Your task to perform on an android device: Do I have any events today? Image 0: 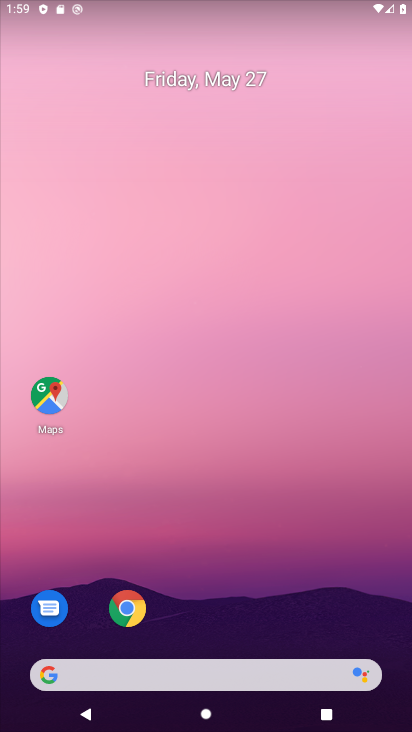
Step 0: drag from (254, 536) to (192, 24)
Your task to perform on an android device: Do I have any events today? Image 1: 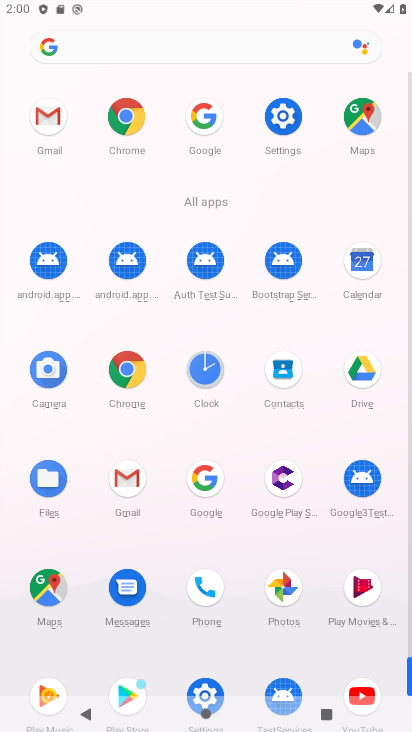
Step 1: click (361, 260)
Your task to perform on an android device: Do I have any events today? Image 2: 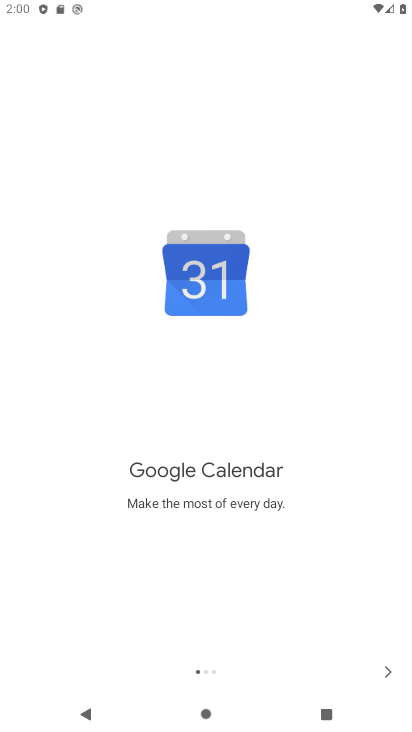
Step 2: click (388, 673)
Your task to perform on an android device: Do I have any events today? Image 3: 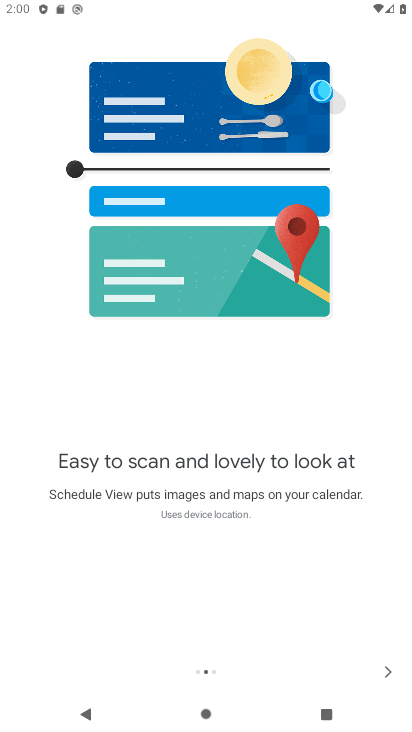
Step 3: click (386, 668)
Your task to perform on an android device: Do I have any events today? Image 4: 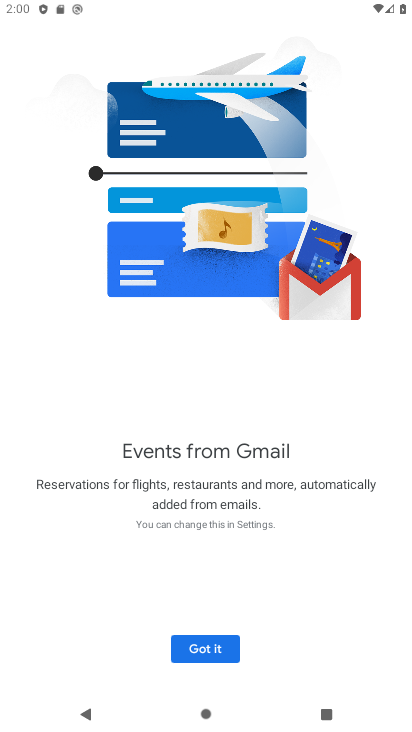
Step 4: click (224, 642)
Your task to perform on an android device: Do I have any events today? Image 5: 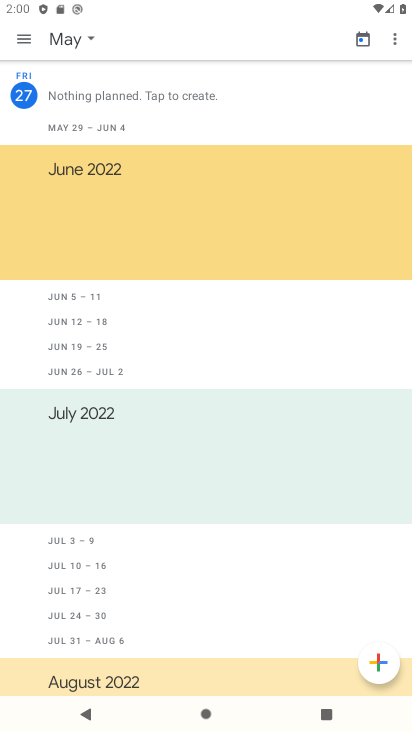
Step 5: click (20, 39)
Your task to perform on an android device: Do I have any events today? Image 6: 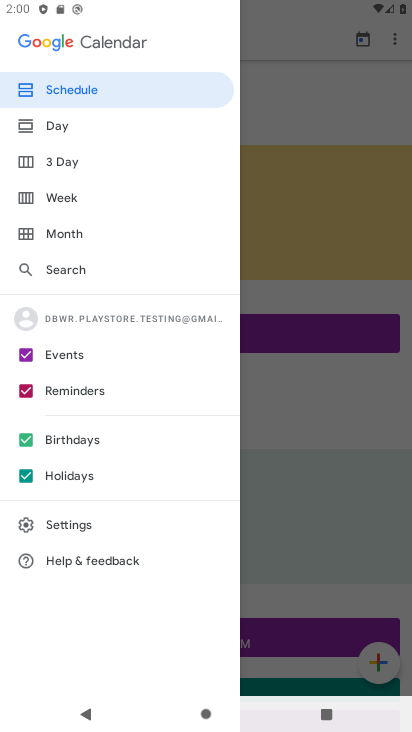
Step 6: click (72, 348)
Your task to perform on an android device: Do I have any events today? Image 7: 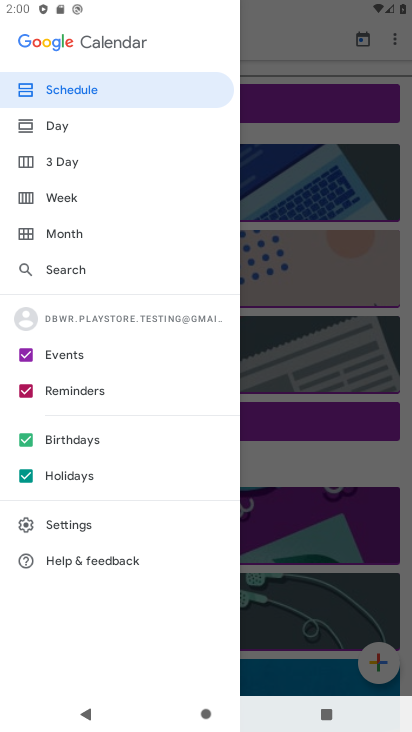
Step 7: click (295, 48)
Your task to perform on an android device: Do I have any events today? Image 8: 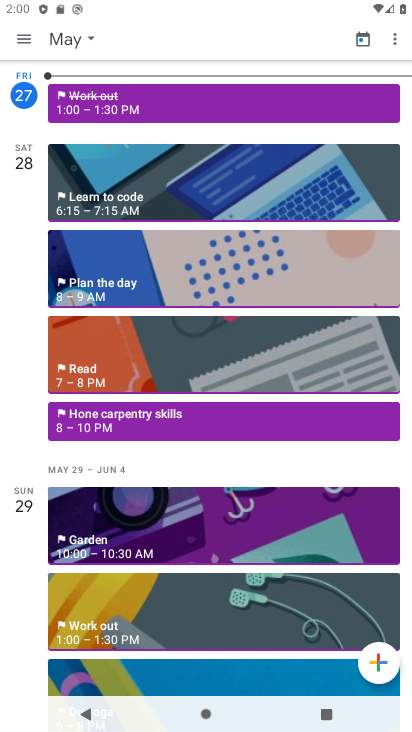
Step 8: task complete